Your task to perform on an android device: open wifi settings Image 0: 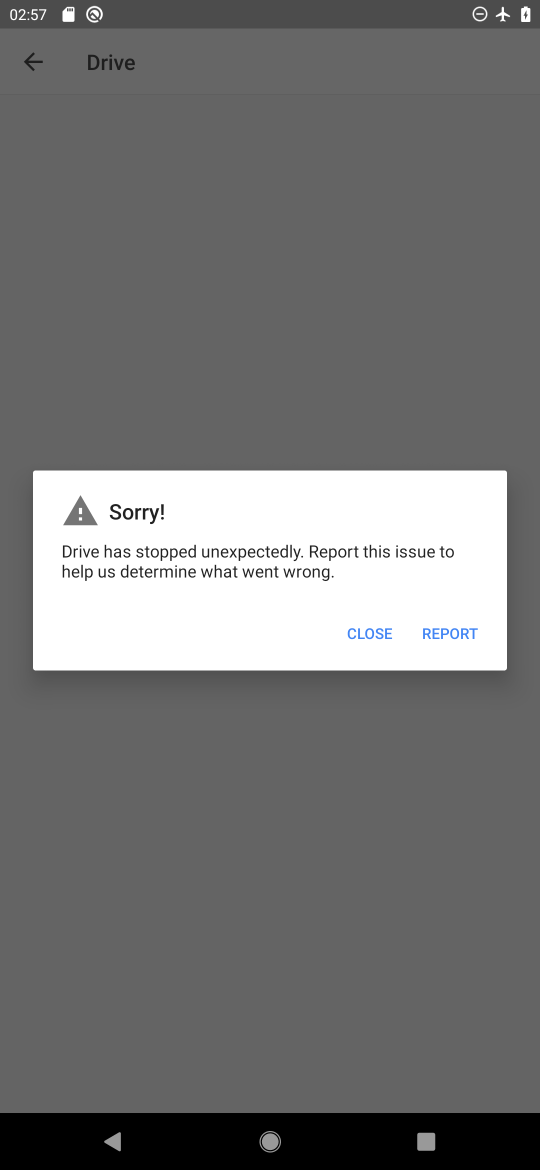
Step 0: press home button
Your task to perform on an android device: open wifi settings Image 1: 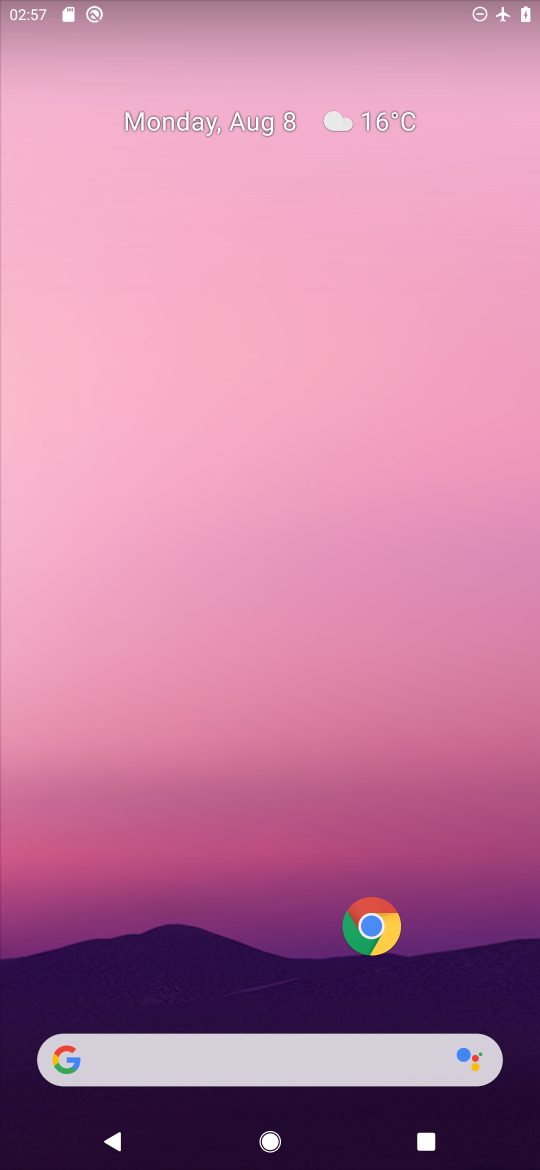
Step 1: drag from (320, 603) to (318, 0)
Your task to perform on an android device: open wifi settings Image 2: 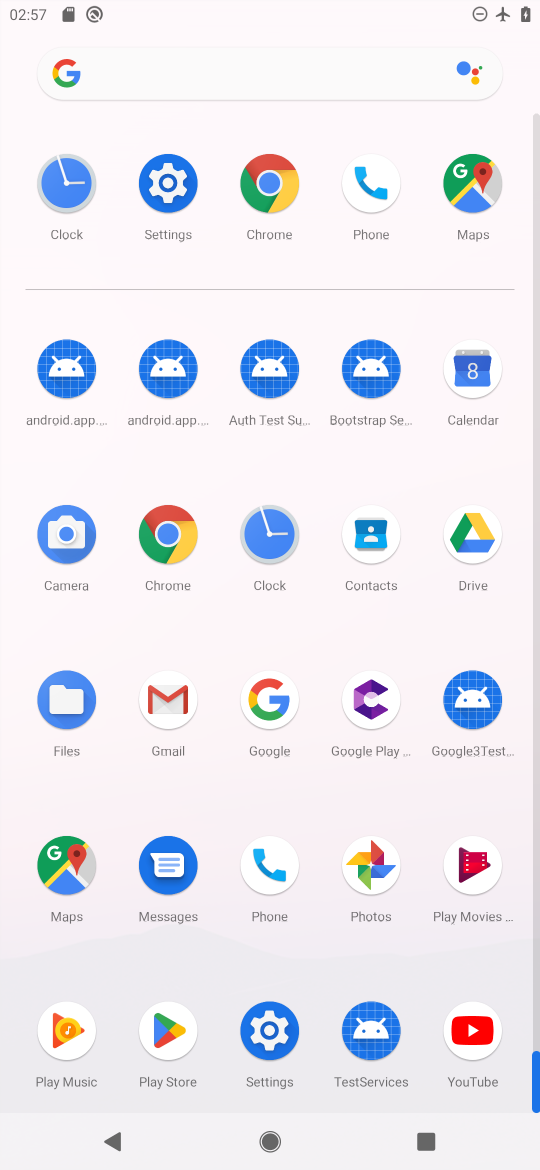
Step 2: click (186, 198)
Your task to perform on an android device: open wifi settings Image 3: 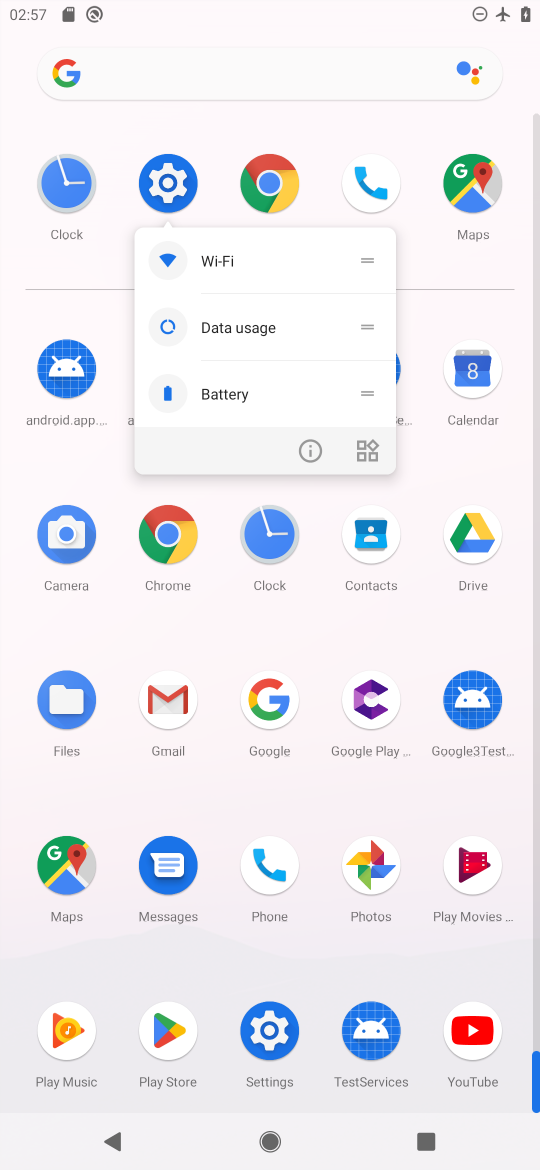
Step 3: click (163, 173)
Your task to perform on an android device: open wifi settings Image 4: 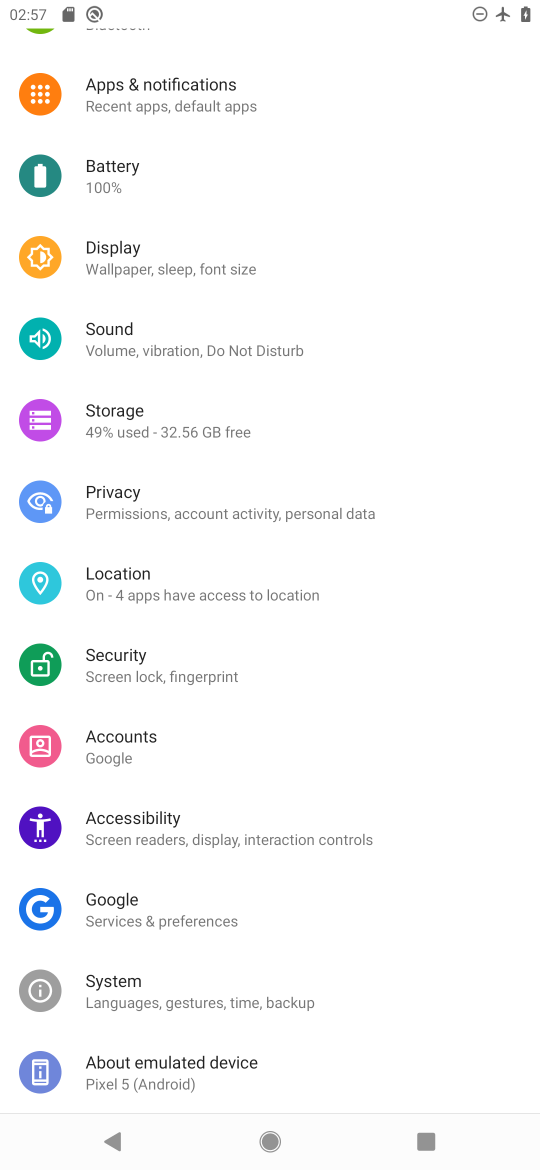
Step 4: drag from (255, 74) to (217, 1080)
Your task to perform on an android device: open wifi settings Image 5: 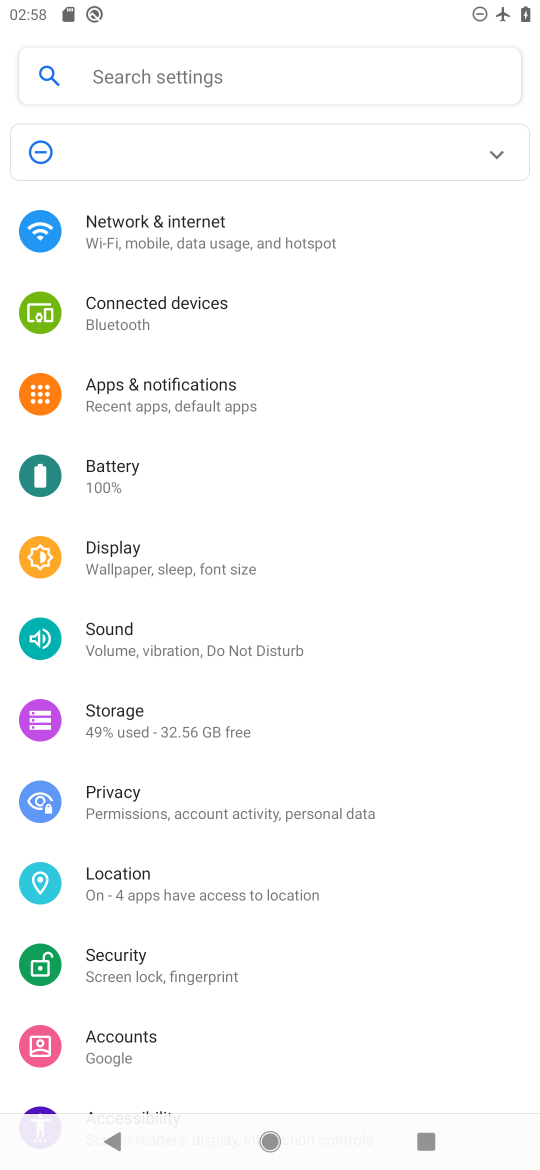
Step 5: click (255, 228)
Your task to perform on an android device: open wifi settings Image 6: 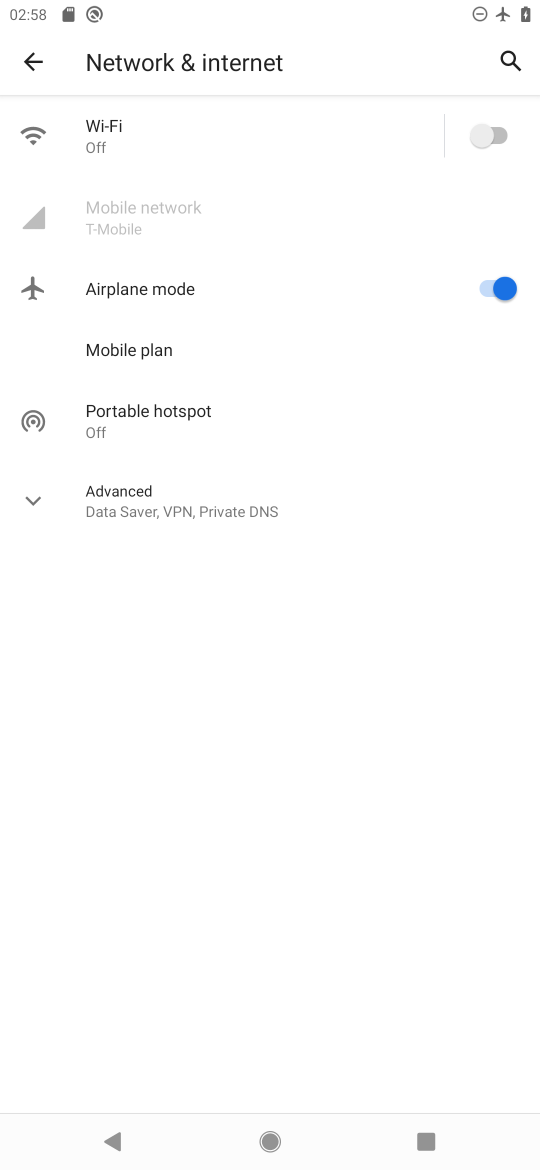
Step 6: click (243, 153)
Your task to perform on an android device: open wifi settings Image 7: 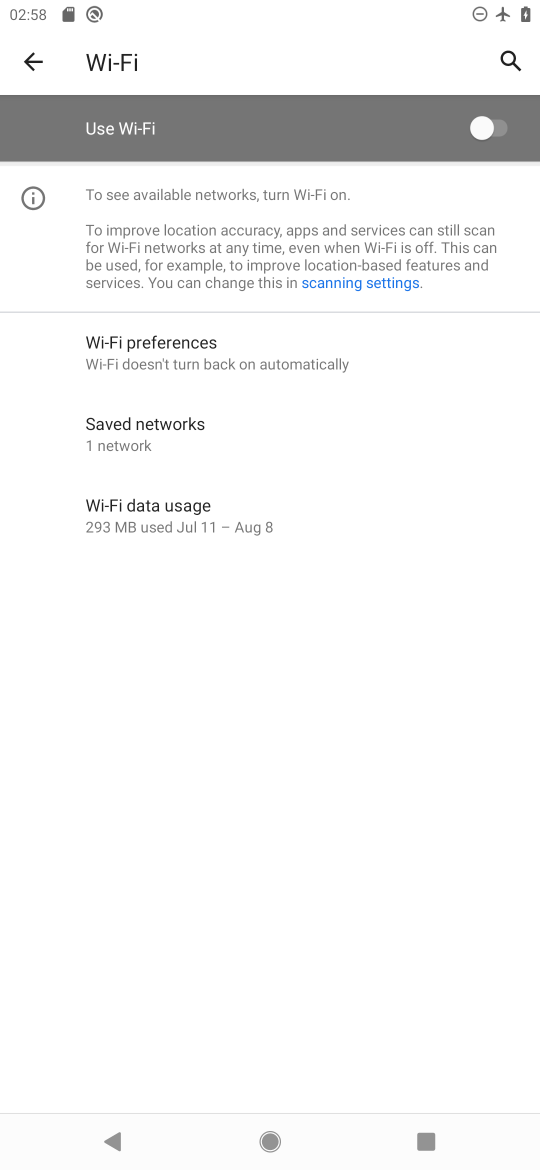
Step 7: click (243, 153)
Your task to perform on an android device: open wifi settings Image 8: 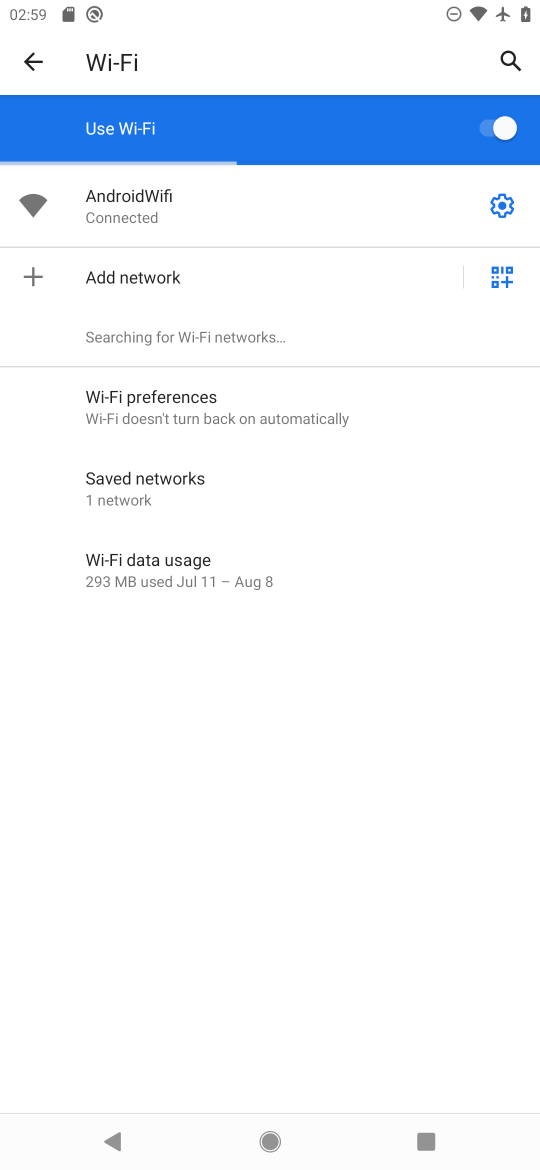
Step 8: task complete